Your task to perform on an android device: Open settings Image 0: 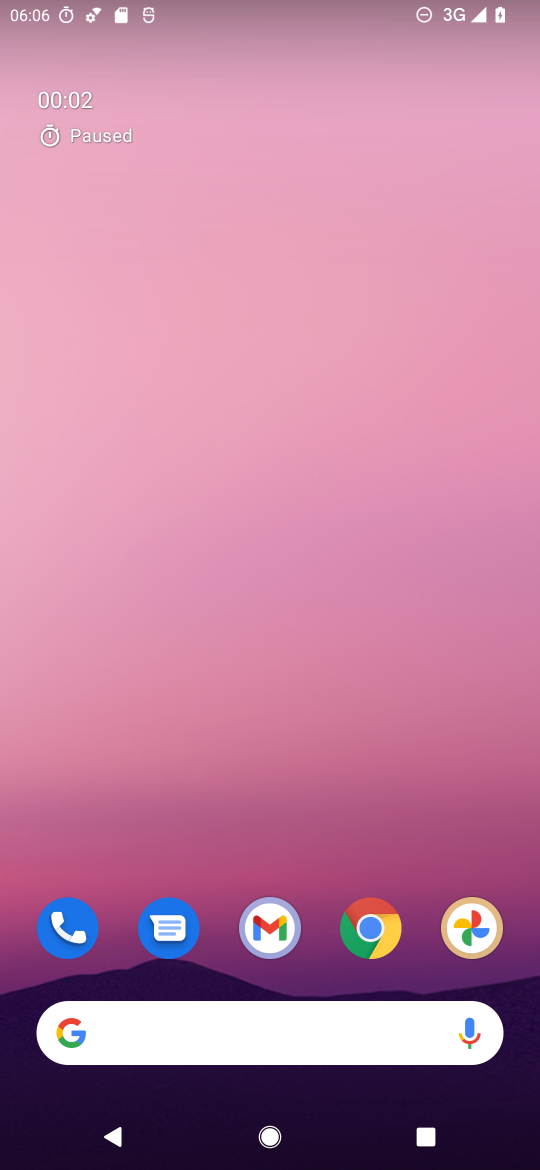
Step 0: drag from (331, 889) to (365, 93)
Your task to perform on an android device: Open settings Image 1: 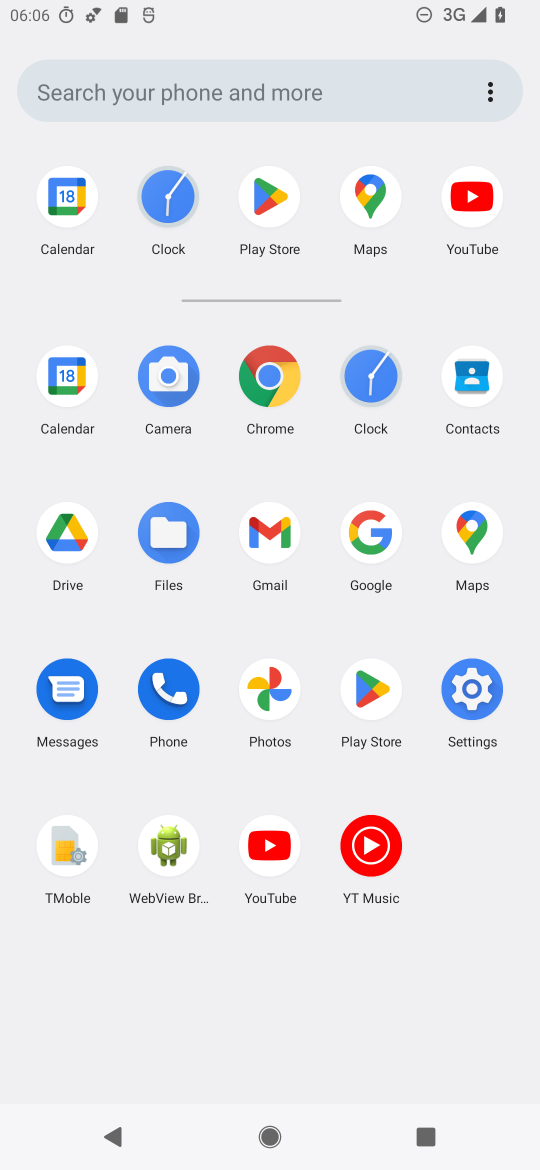
Step 1: click (470, 697)
Your task to perform on an android device: Open settings Image 2: 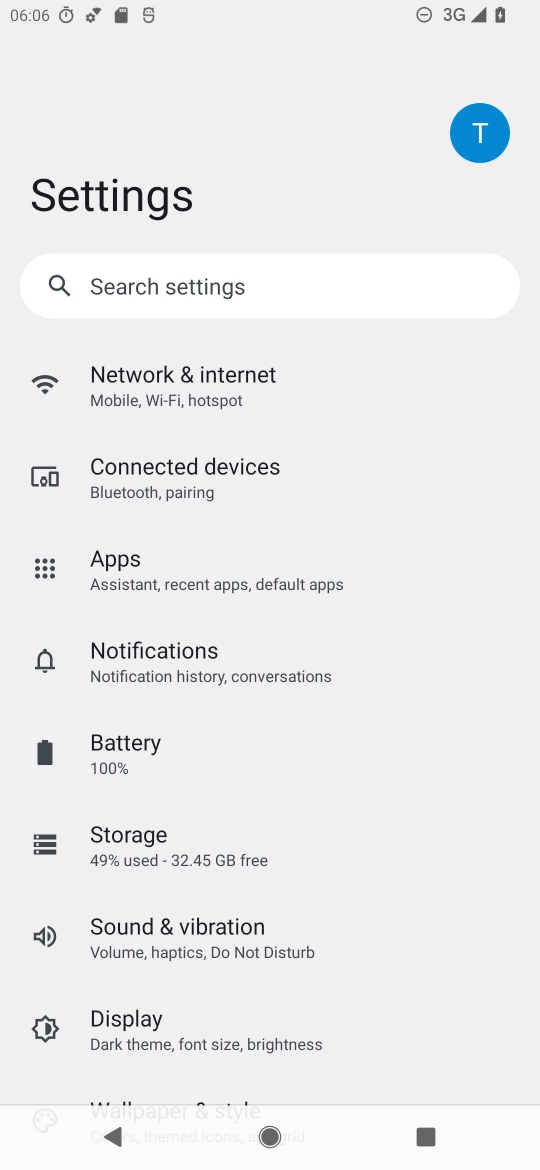
Step 2: click (470, 697)
Your task to perform on an android device: Open settings Image 3: 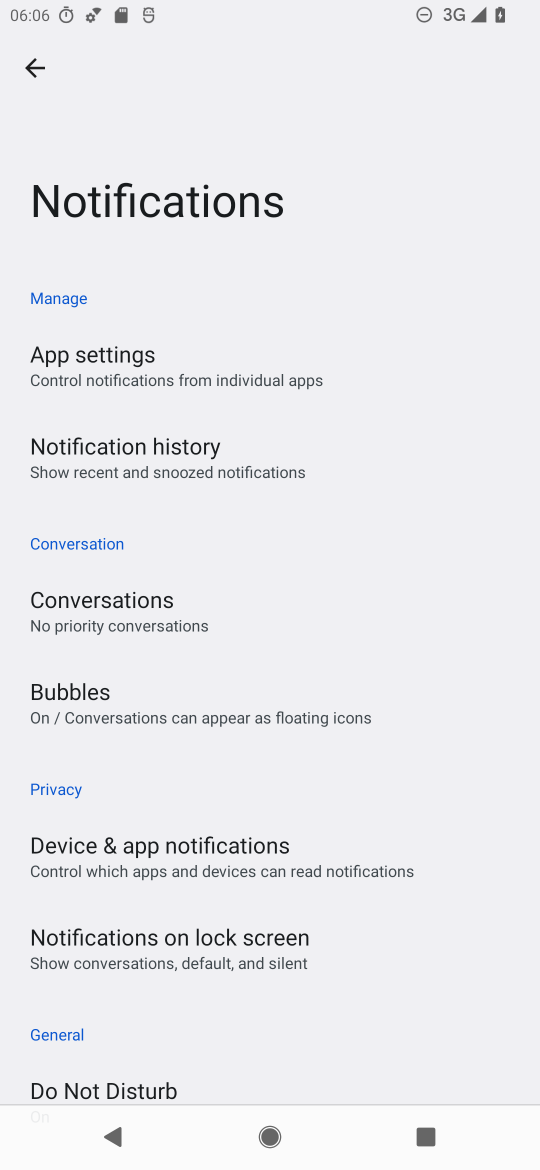
Step 3: click (57, 83)
Your task to perform on an android device: Open settings Image 4: 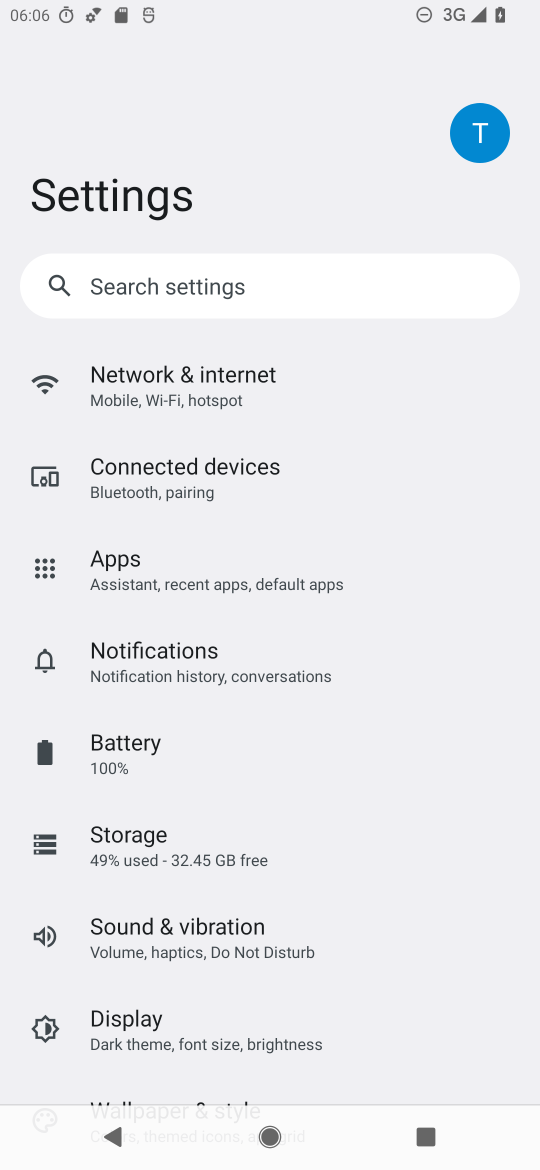
Step 4: task complete